Your task to perform on an android device: Open the Play Movies app and select the watchlist tab. Image 0: 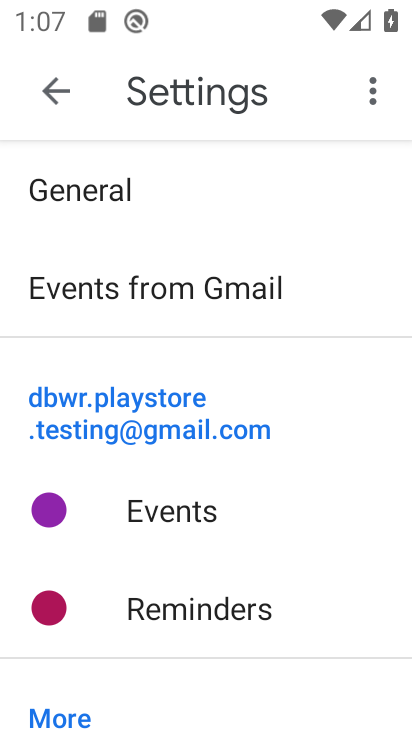
Step 0: press home button
Your task to perform on an android device: Open the Play Movies app and select the watchlist tab. Image 1: 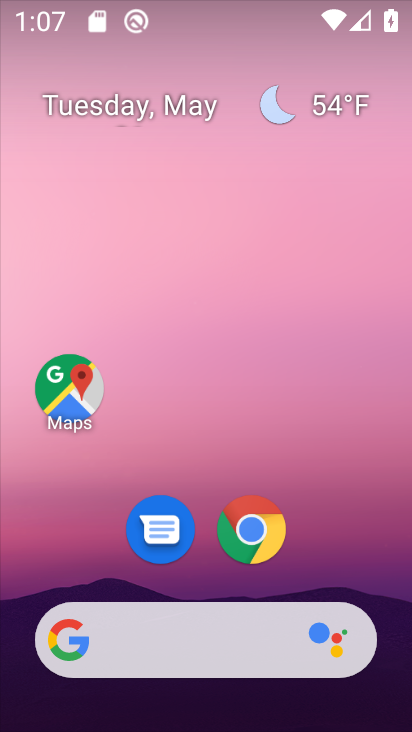
Step 1: drag from (336, 567) to (311, 262)
Your task to perform on an android device: Open the Play Movies app and select the watchlist tab. Image 2: 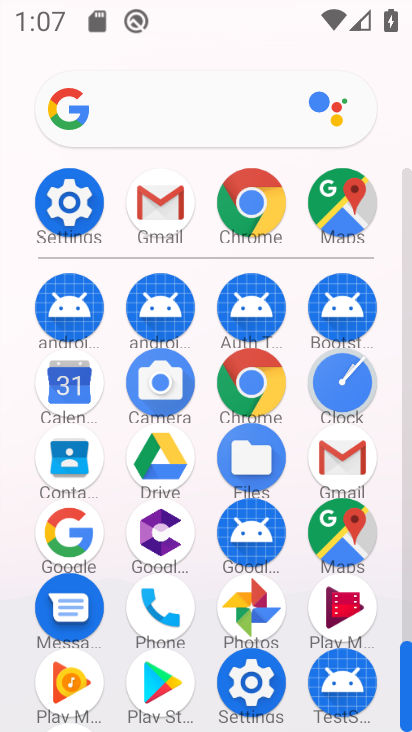
Step 2: drag from (272, 593) to (292, 344)
Your task to perform on an android device: Open the Play Movies app and select the watchlist tab. Image 3: 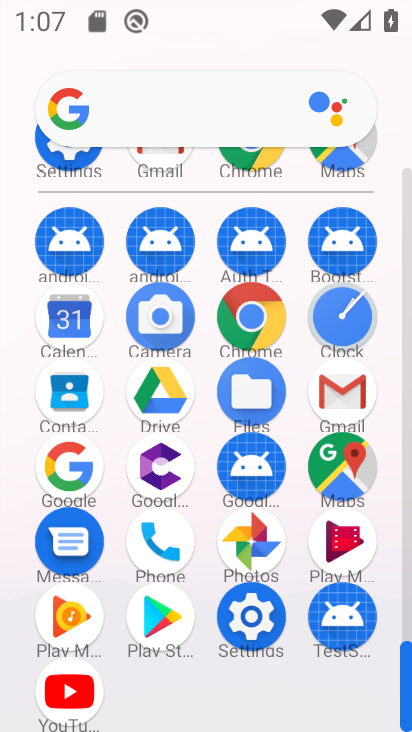
Step 3: click (337, 525)
Your task to perform on an android device: Open the Play Movies app and select the watchlist tab. Image 4: 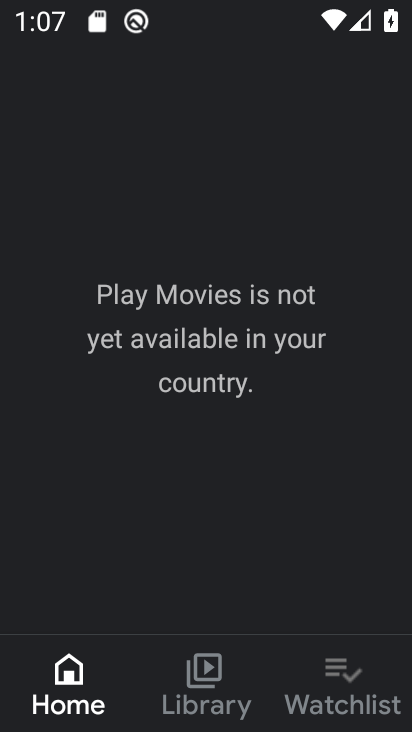
Step 4: click (340, 690)
Your task to perform on an android device: Open the Play Movies app and select the watchlist tab. Image 5: 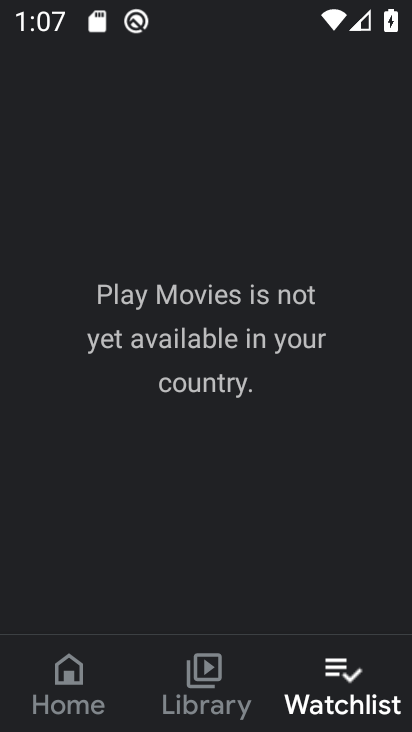
Step 5: task complete